Your task to perform on an android device: Go to calendar. Show me events next week Image 0: 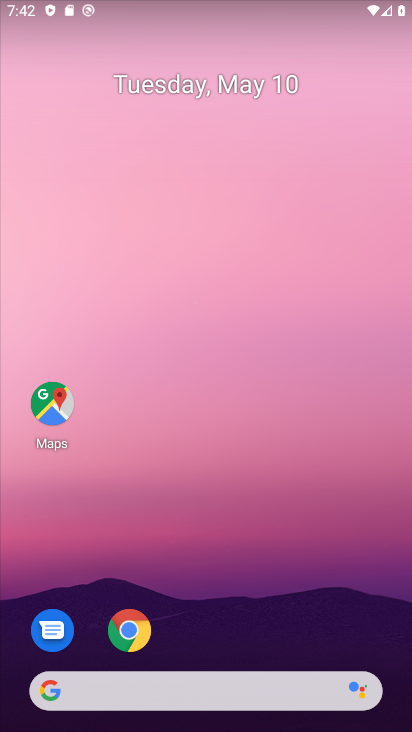
Step 0: drag from (239, 674) to (284, 15)
Your task to perform on an android device: Go to calendar. Show me events next week Image 1: 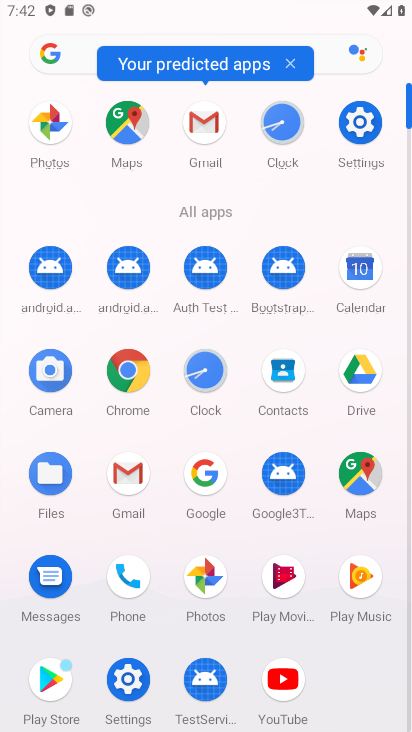
Step 1: click (362, 280)
Your task to perform on an android device: Go to calendar. Show me events next week Image 2: 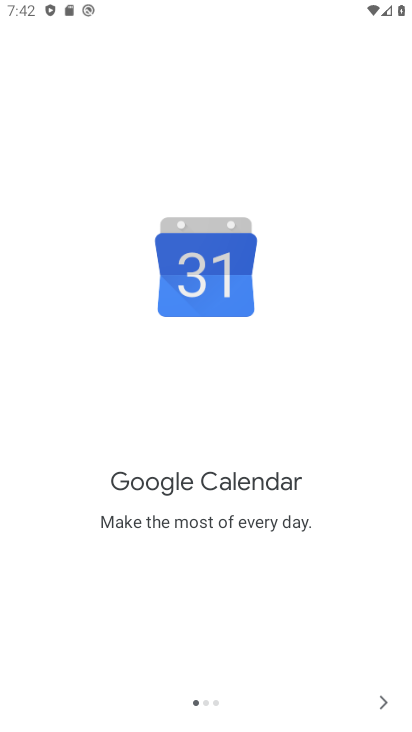
Step 2: click (379, 697)
Your task to perform on an android device: Go to calendar. Show me events next week Image 3: 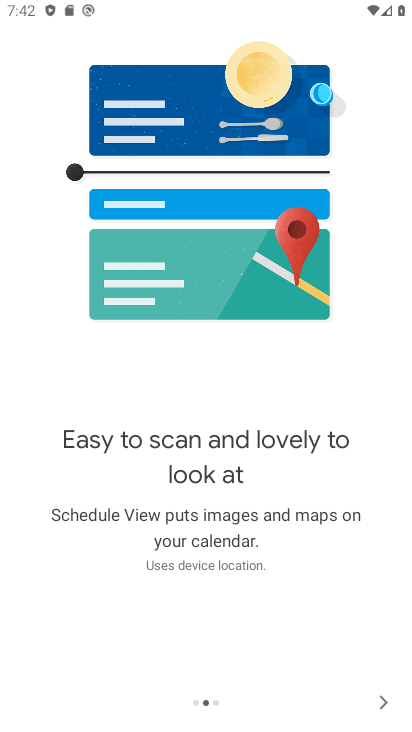
Step 3: click (377, 703)
Your task to perform on an android device: Go to calendar. Show me events next week Image 4: 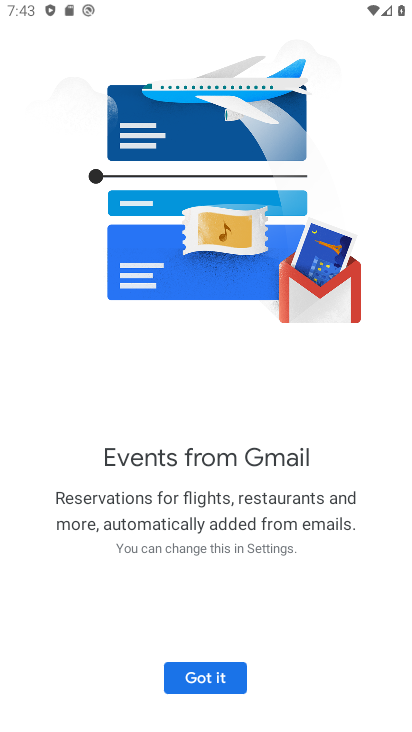
Step 4: click (225, 667)
Your task to perform on an android device: Go to calendar. Show me events next week Image 5: 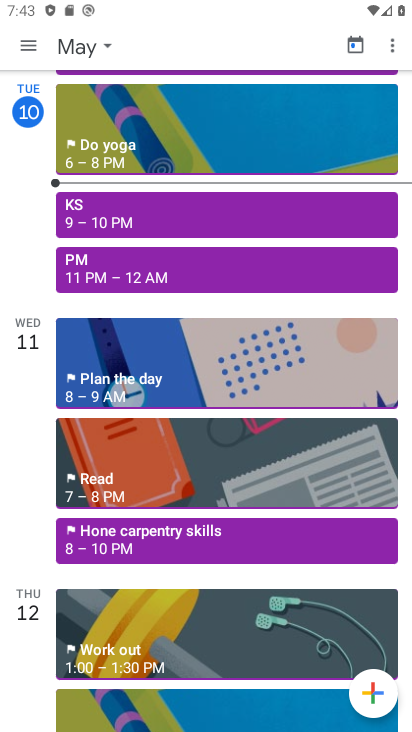
Step 5: click (19, 33)
Your task to perform on an android device: Go to calendar. Show me events next week Image 6: 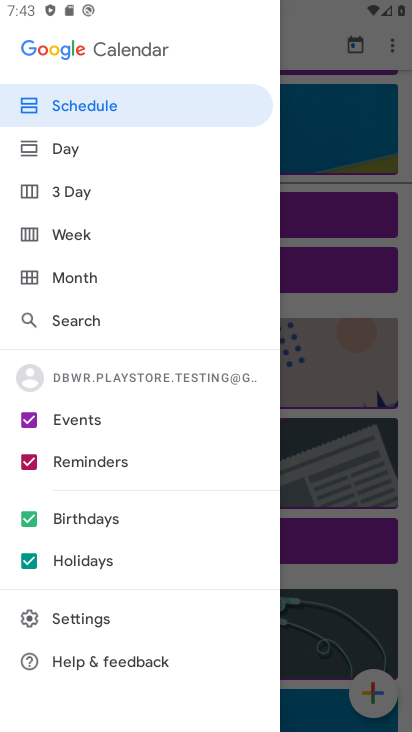
Step 6: click (83, 230)
Your task to perform on an android device: Go to calendar. Show me events next week Image 7: 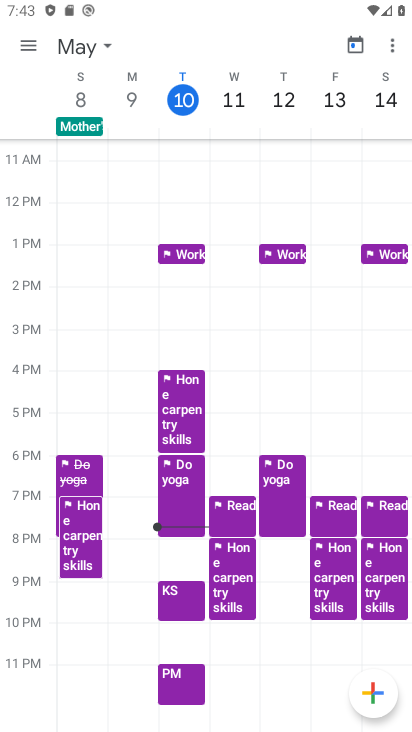
Step 7: task complete